Your task to perform on an android device: What's on my calendar tomorrow? Image 0: 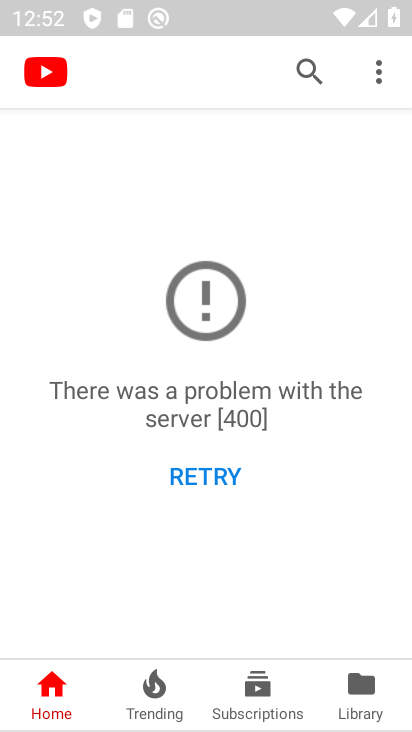
Step 0: press home button
Your task to perform on an android device: What's on my calendar tomorrow? Image 1: 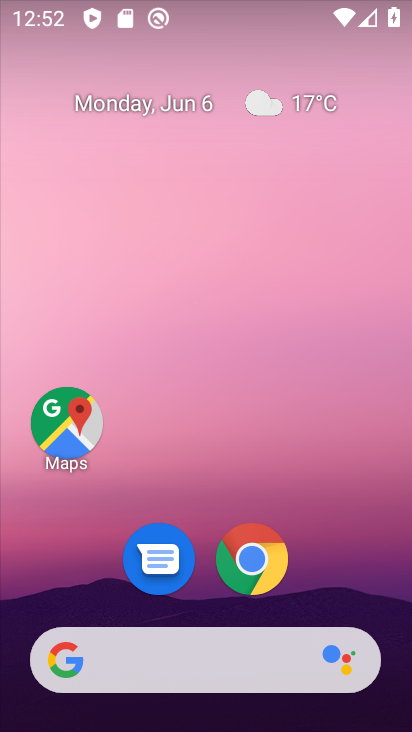
Step 1: drag from (199, 673) to (292, 184)
Your task to perform on an android device: What's on my calendar tomorrow? Image 2: 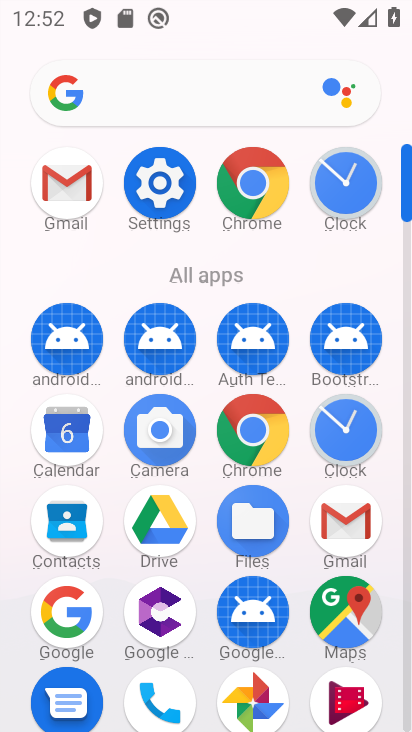
Step 2: click (65, 453)
Your task to perform on an android device: What's on my calendar tomorrow? Image 3: 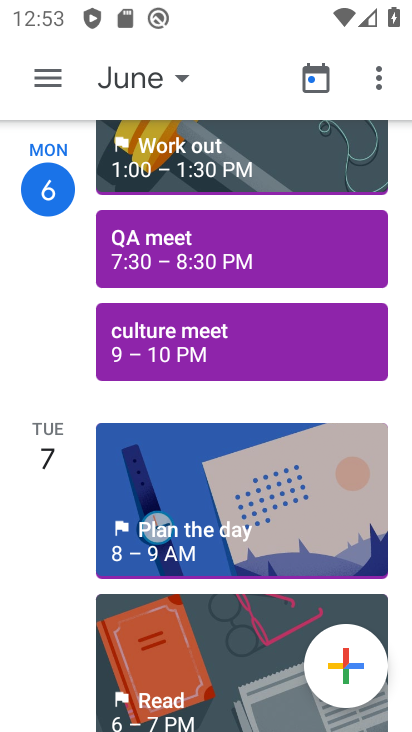
Step 3: task complete